Your task to perform on an android device: open a new tab in the chrome app Image 0: 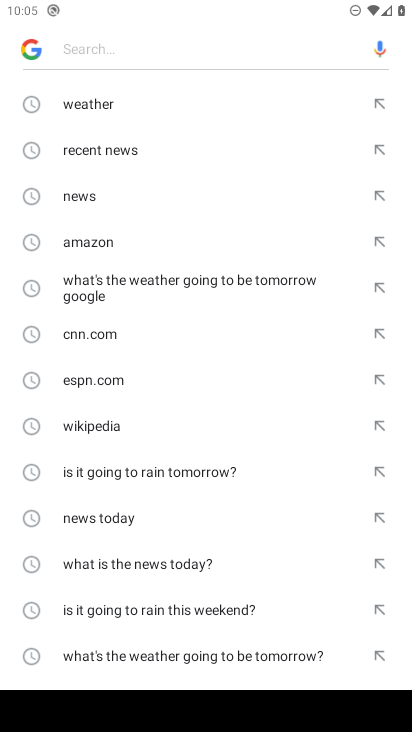
Step 0: press home button
Your task to perform on an android device: open a new tab in the chrome app Image 1: 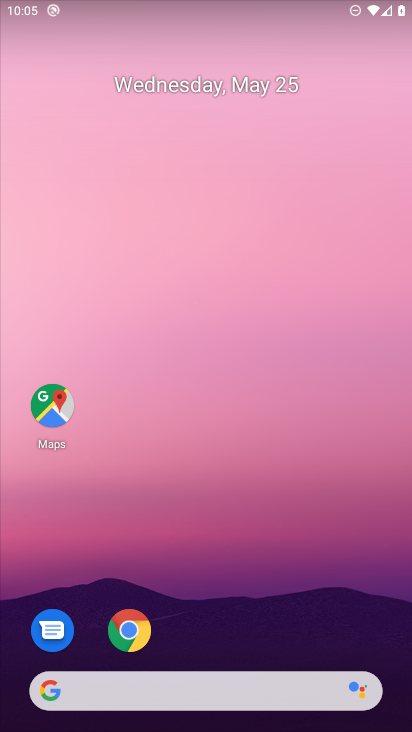
Step 1: click (135, 623)
Your task to perform on an android device: open a new tab in the chrome app Image 2: 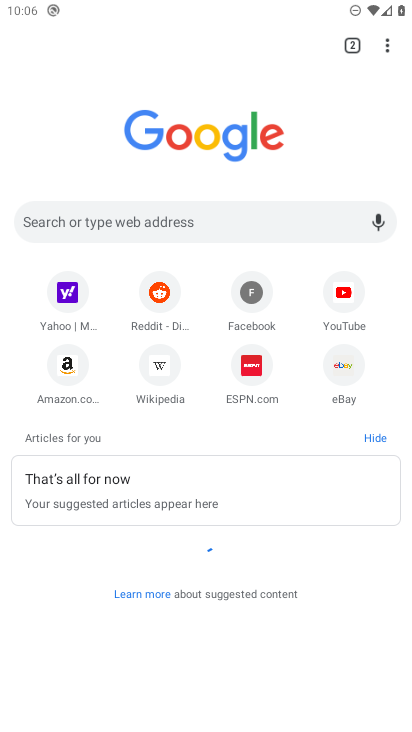
Step 2: click (383, 38)
Your task to perform on an android device: open a new tab in the chrome app Image 3: 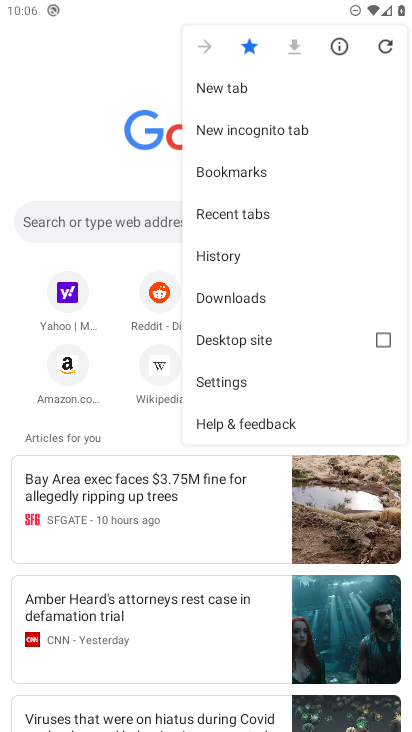
Step 3: click (240, 80)
Your task to perform on an android device: open a new tab in the chrome app Image 4: 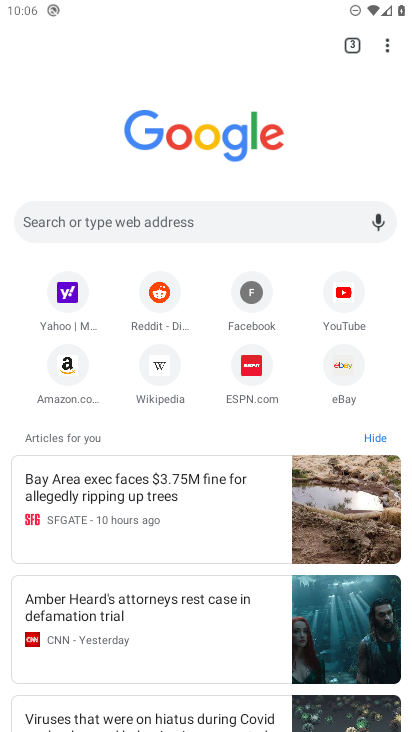
Step 4: task complete